Your task to perform on an android device: Check the weather Image 0: 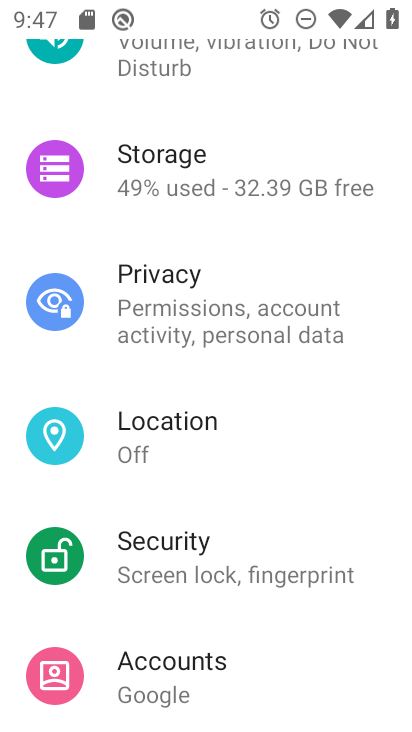
Step 0: press home button
Your task to perform on an android device: Check the weather Image 1: 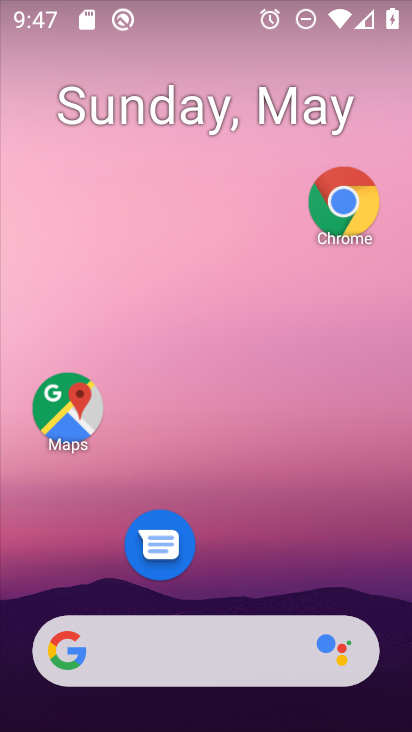
Step 1: click (139, 643)
Your task to perform on an android device: Check the weather Image 2: 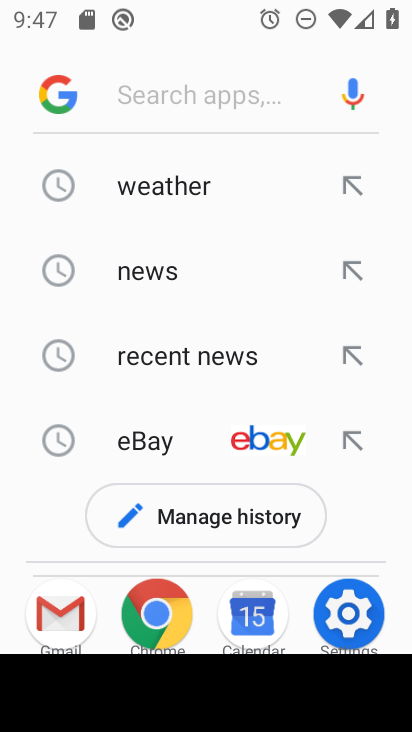
Step 2: type "weather"
Your task to perform on an android device: Check the weather Image 3: 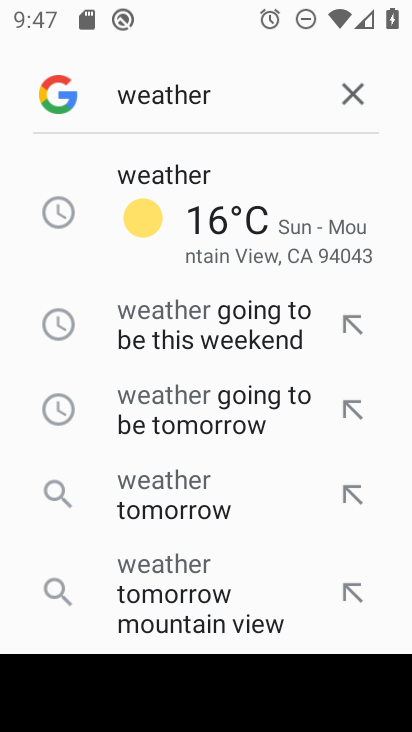
Step 3: click (178, 233)
Your task to perform on an android device: Check the weather Image 4: 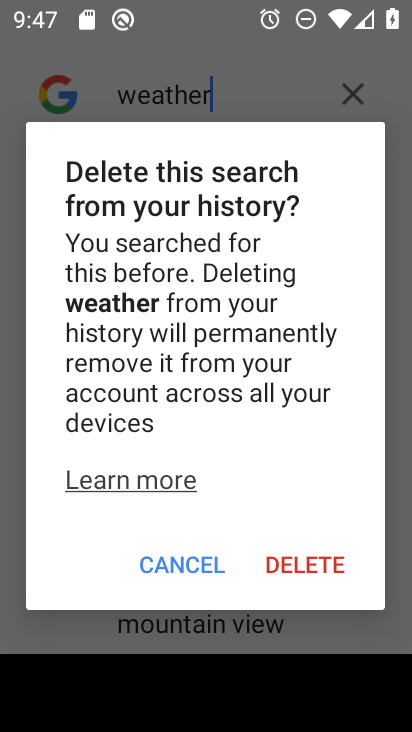
Step 4: click (210, 572)
Your task to perform on an android device: Check the weather Image 5: 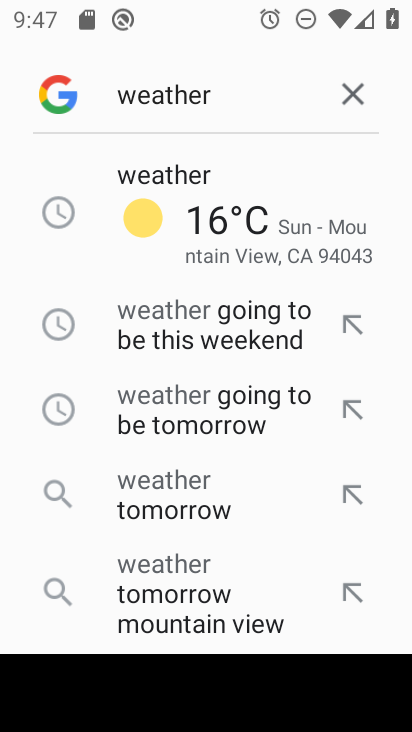
Step 5: click (289, 238)
Your task to perform on an android device: Check the weather Image 6: 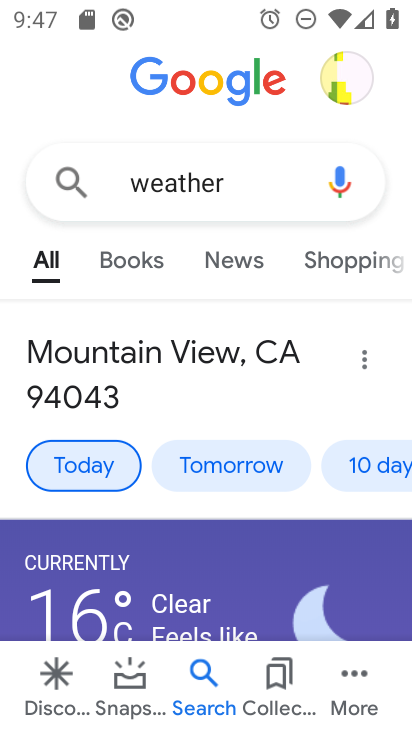
Step 6: task complete